Your task to perform on an android device: read, delete, or share a saved page in the chrome app Image 0: 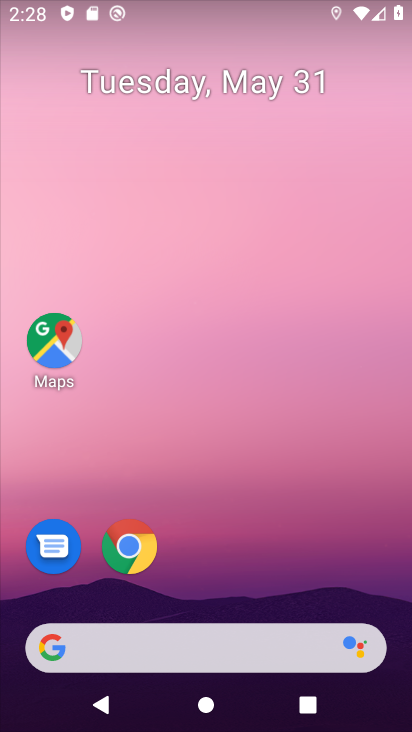
Step 0: click (134, 535)
Your task to perform on an android device: read, delete, or share a saved page in the chrome app Image 1: 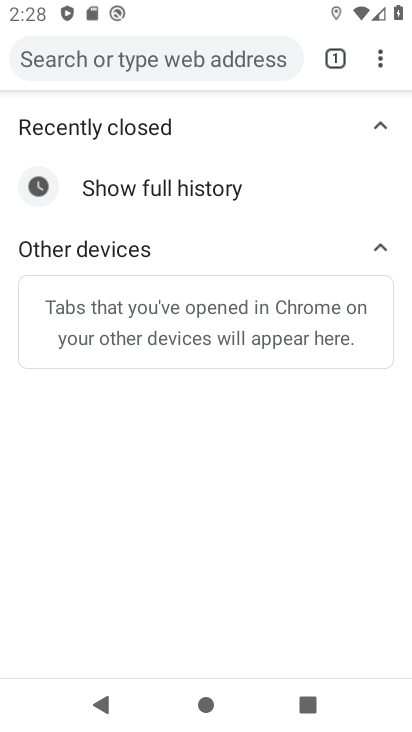
Step 1: click (383, 60)
Your task to perform on an android device: read, delete, or share a saved page in the chrome app Image 2: 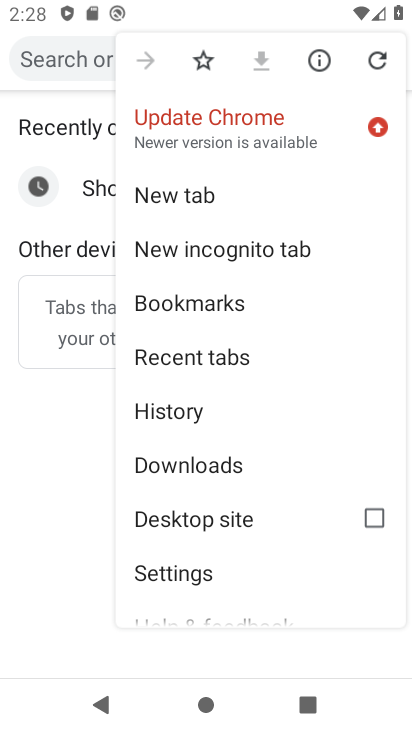
Step 2: click (217, 452)
Your task to perform on an android device: read, delete, or share a saved page in the chrome app Image 3: 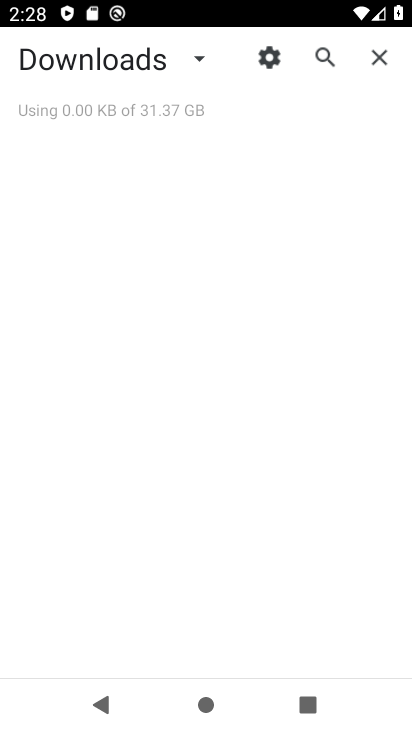
Step 3: task complete